Your task to perform on an android device: turn off javascript in the chrome app Image 0: 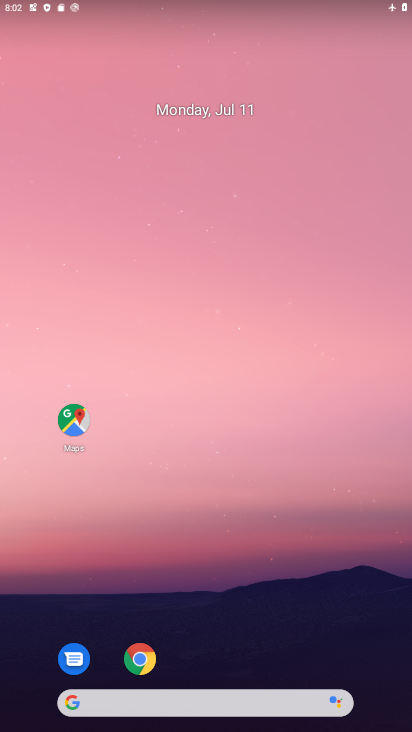
Step 0: click (285, 114)
Your task to perform on an android device: turn off javascript in the chrome app Image 1: 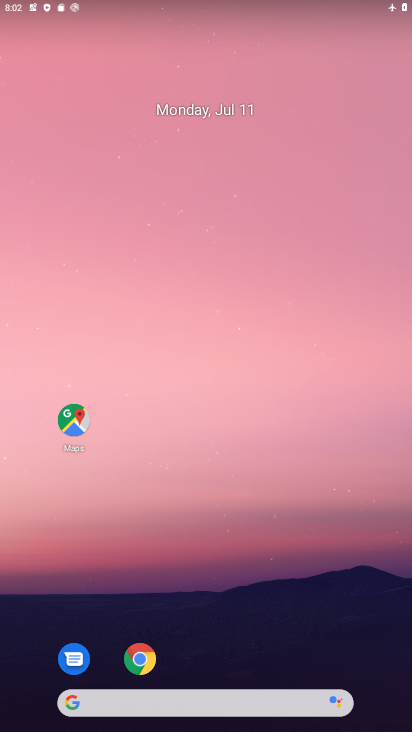
Step 1: drag from (194, 679) to (236, 63)
Your task to perform on an android device: turn off javascript in the chrome app Image 2: 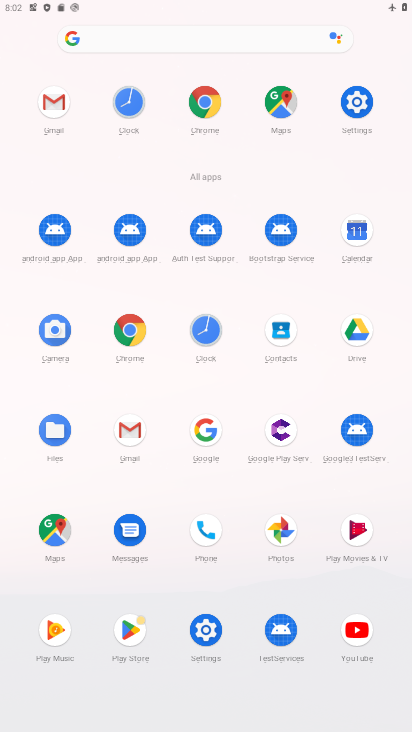
Step 2: click (131, 319)
Your task to perform on an android device: turn off javascript in the chrome app Image 3: 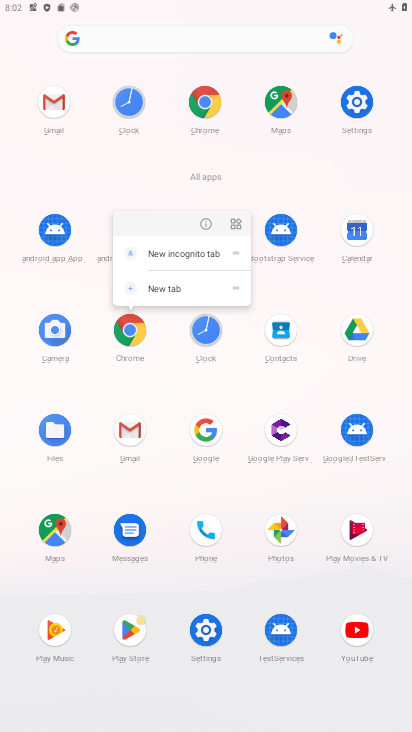
Step 3: click (205, 216)
Your task to perform on an android device: turn off javascript in the chrome app Image 4: 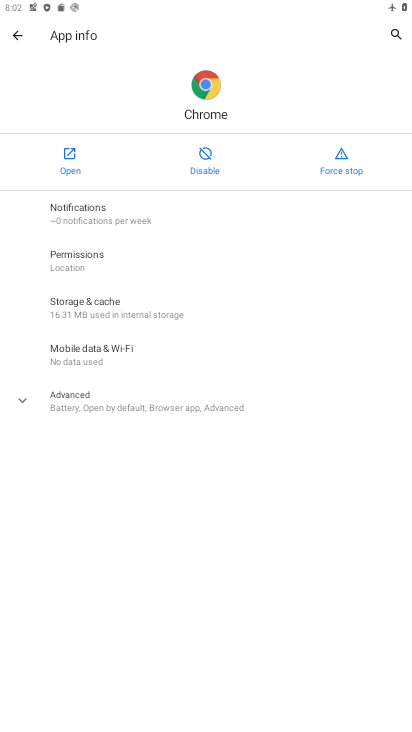
Step 4: click (74, 164)
Your task to perform on an android device: turn off javascript in the chrome app Image 5: 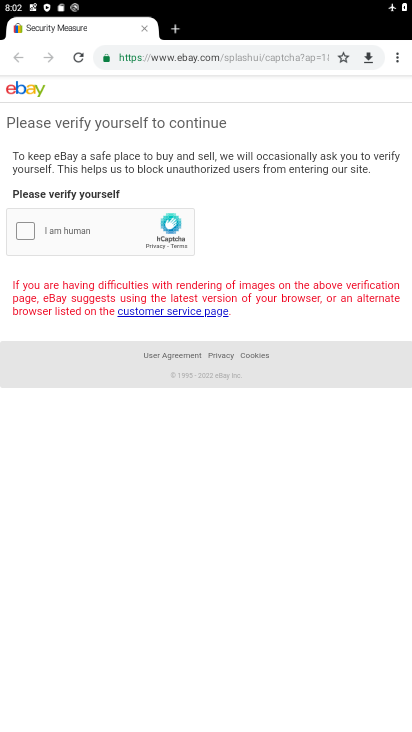
Step 5: click (401, 57)
Your task to perform on an android device: turn off javascript in the chrome app Image 6: 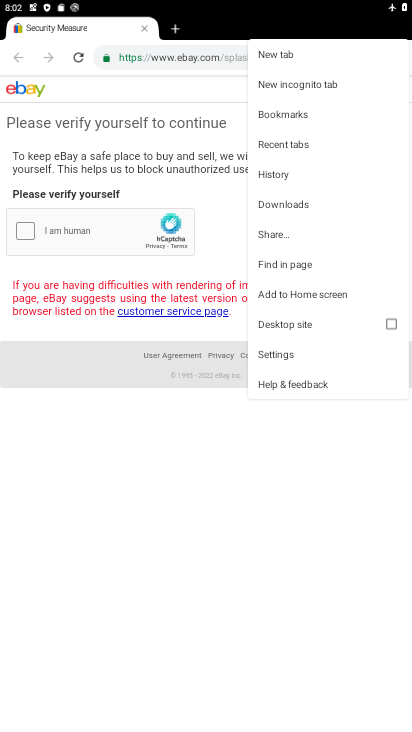
Step 6: click (276, 349)
Your task to perform on an android device: turn off javascript in the chrome app Image 7: 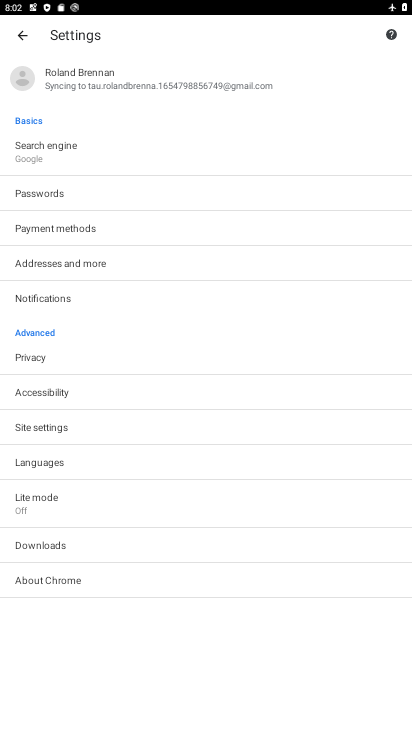
Step 7: click (50, 431)
Your task to perform on an android device: turn off javascript in the chrome app Image 8: 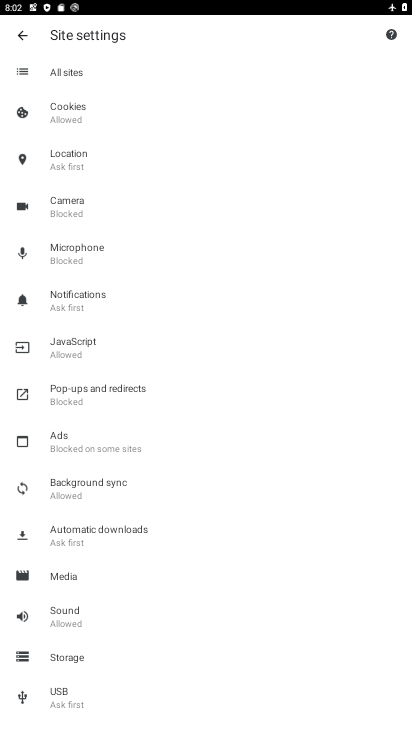
Step 8: click (104, 349)
Your task to perform on an android device: turn off javascript in the chrome app Image 9: 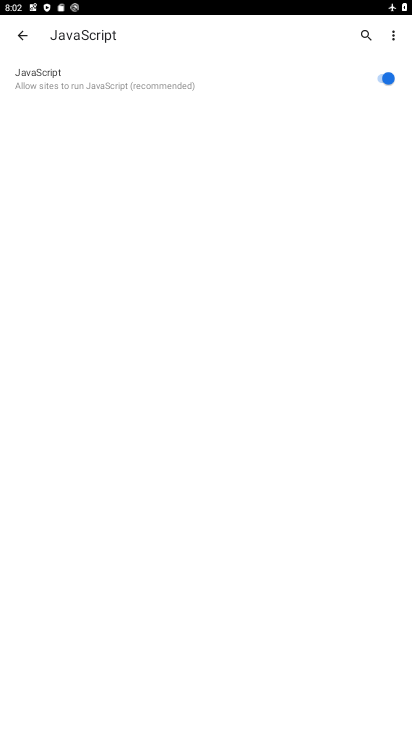
Step 9: click (387, 71)
Your task to perform on an android device: turn off javascript in the chrome app Image 10: 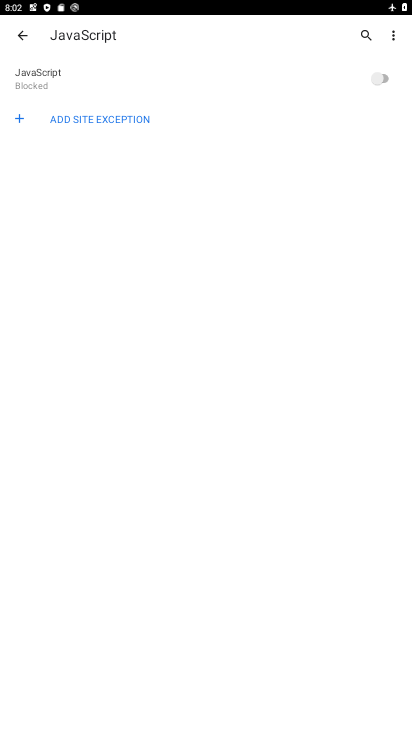
Step 10: task complete